Your task to perform on an android device: What's the weather going to be tomorrow? Image 0: 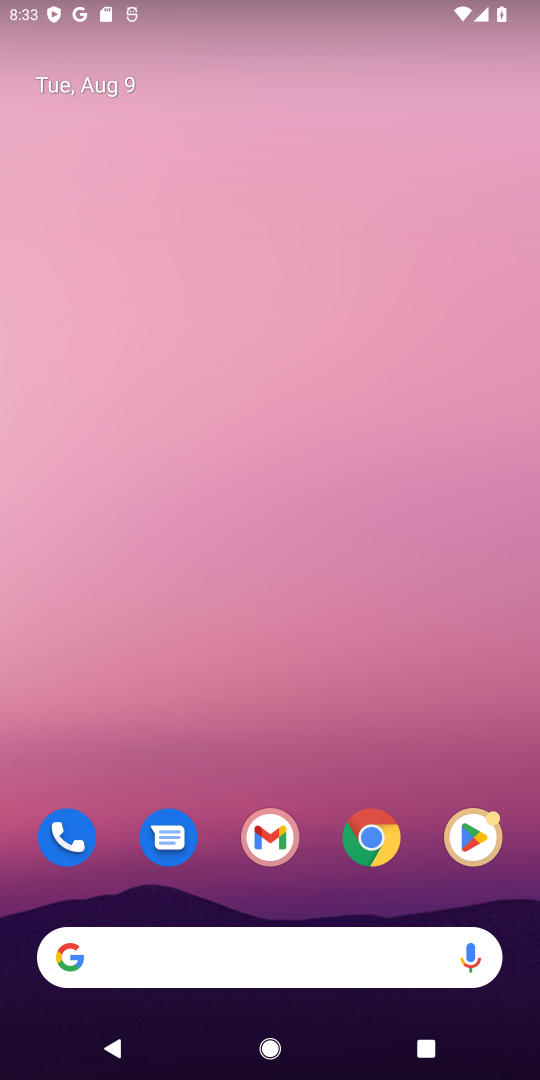
Step 0: drag from (236, 695) to (236, 61)
Your task to perform on an android device: What's the weather going to be tomorrow? Image 1: 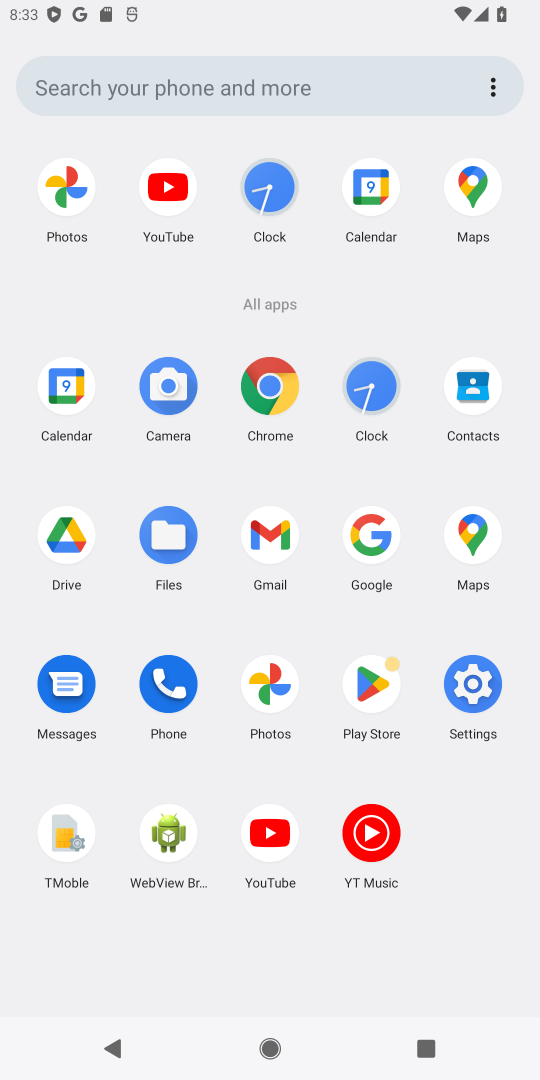
Step 1: click (376, 539)
Your task to perform on an android device: What's the weather going to be tomorrow? Image 2: 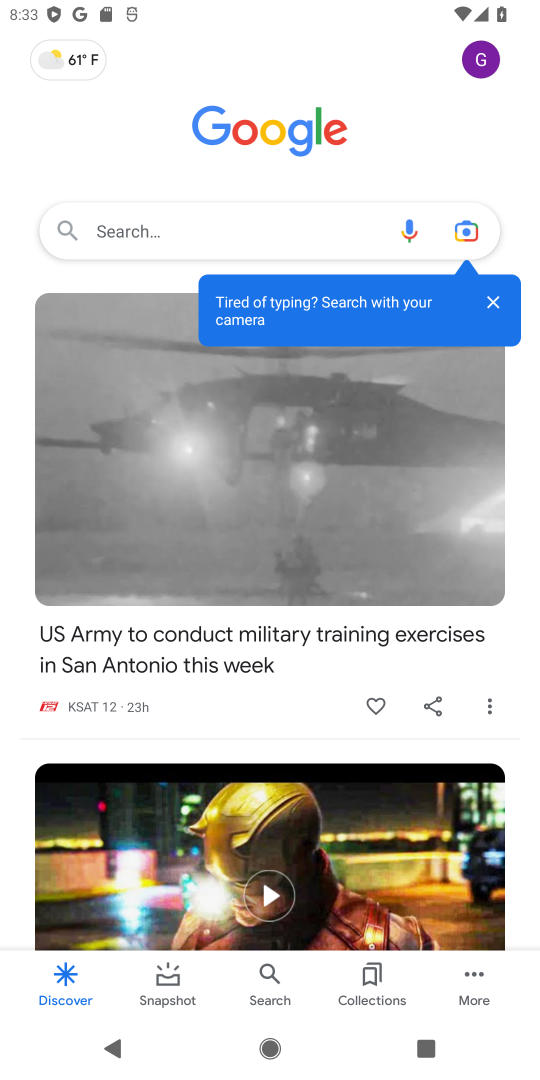
Step 2: click (237, 238)
Your task to perform on an android device: What's the weather going to be tomorrow? Image 3: 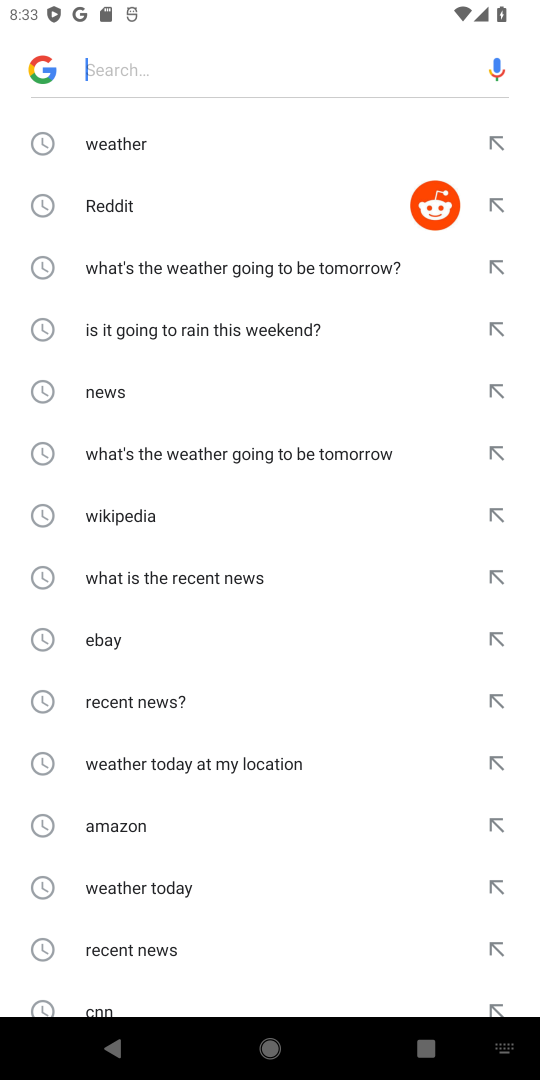
Step 3: click (95, 132)
Your task to perform on an android device: What's the weather going to be tomorrow? Image 4: 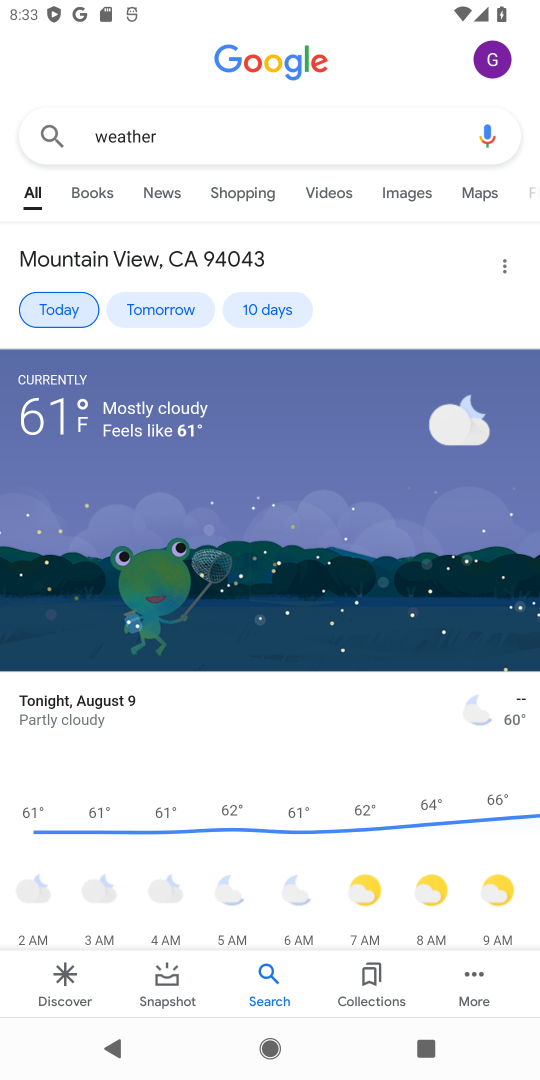
Step 4: click (147, 310)
Your task to perform on an android device: What's the weather going to be tomorrow? Image 5: 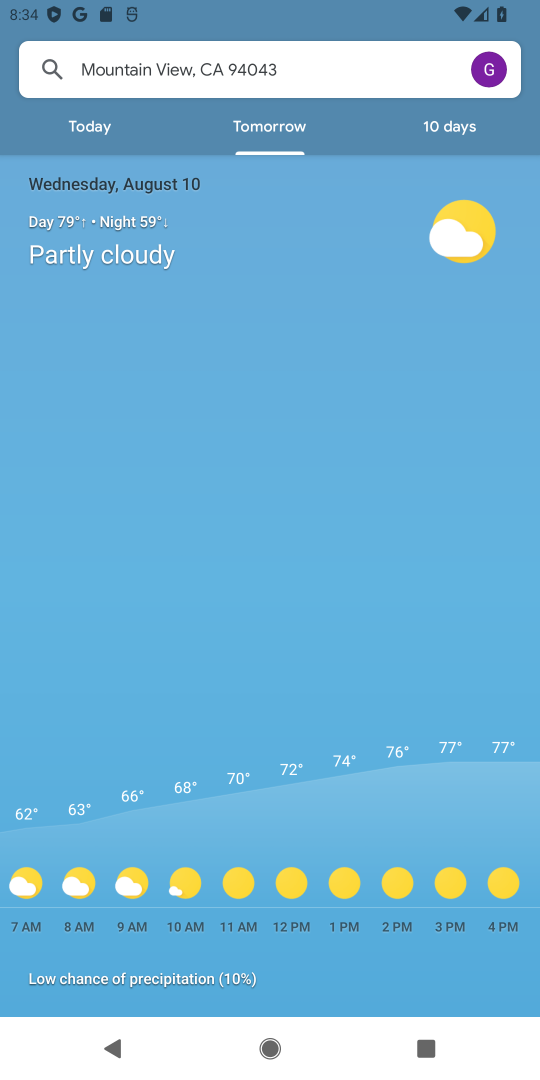
Step 5: task complete